Your task to perform on an android device: Open Google Maps Image 0: 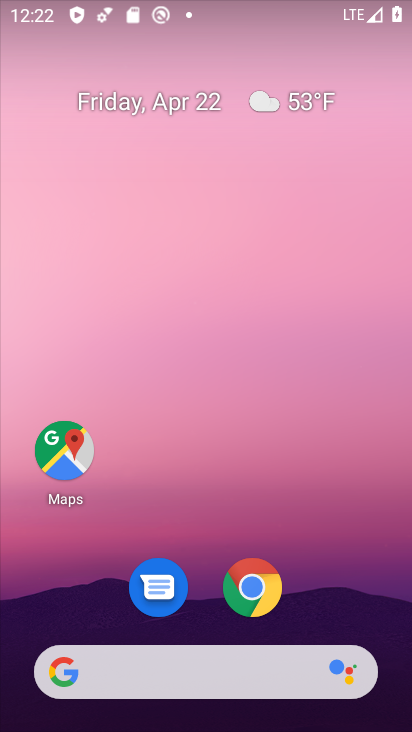
Step 0: click (59, 443)
Your task to perform on an android device: Open Google Maps Image 1: 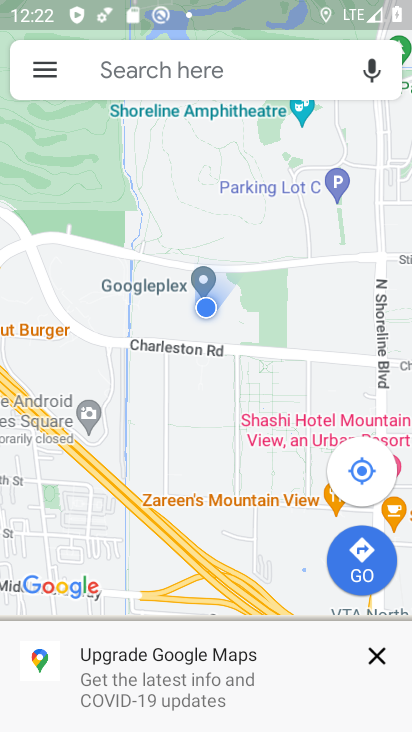
Step 1: task complete